Your task to perform on an android device: Open settings on Google Maps Image 0: 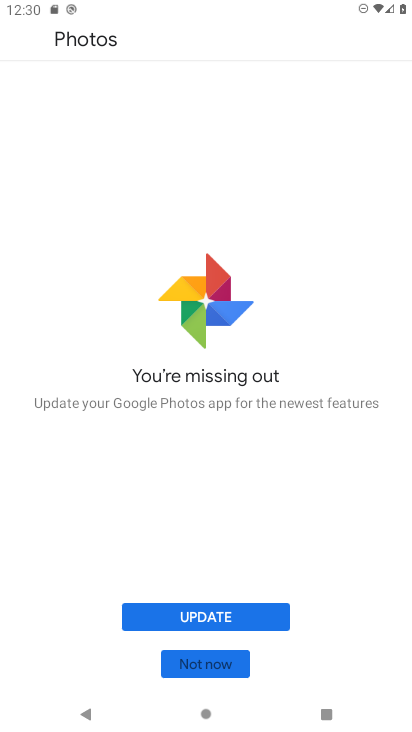
Step 0: press home button
Your task to perform on an android device: Open settings on Google Maps Image 1: 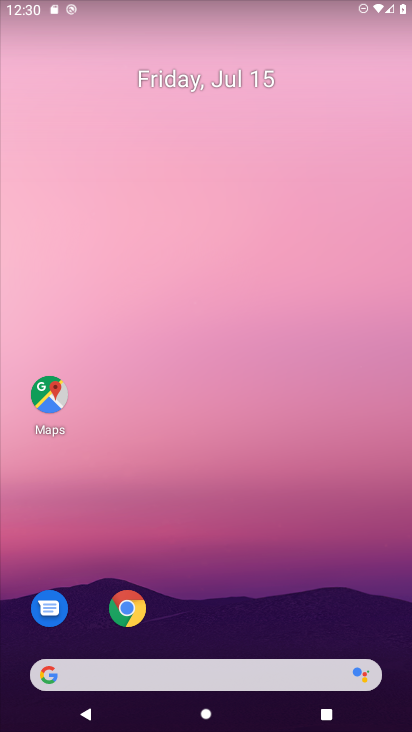
Step 1: drag from (216, 665) to (346, 11)
Your task to perform on an android device: Open settings on Google Maps Image 2: 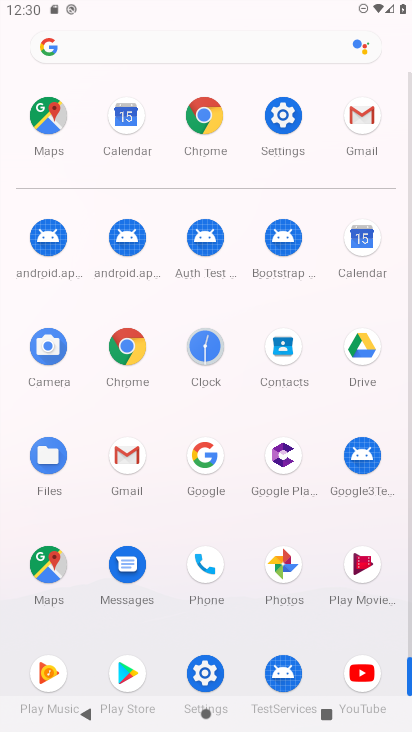
Step 2: click (47, 559)
Your task to perform on an android device: Open settings on Google Maps Image 3: 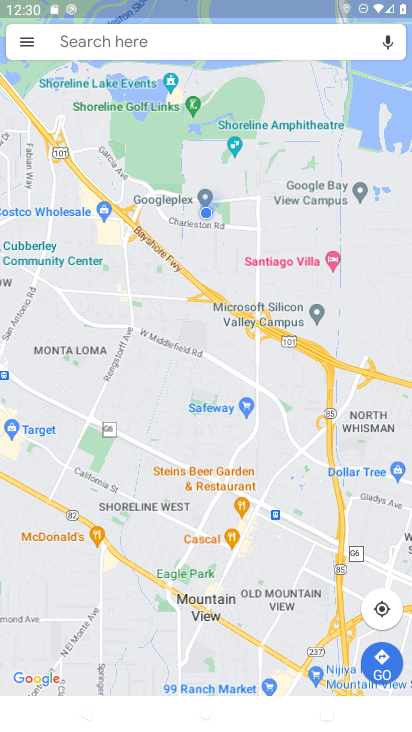
Step 3: click (30, 38)
Your task to perform on an android device: Open settings on Google Maps Image 4: 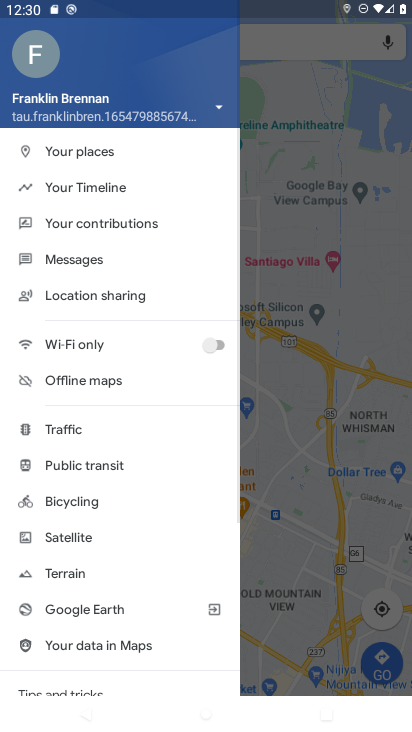
Step 4: click (71, 190)
Your task to perform on an android device: Open settings on Google Maps Image 5: 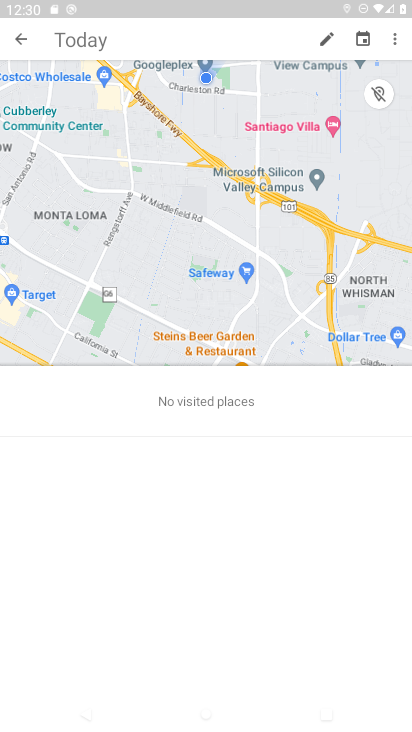
Step 5: click (397, 31)
Your task to perform on an android device: Open settings on Google Maps Image 6: 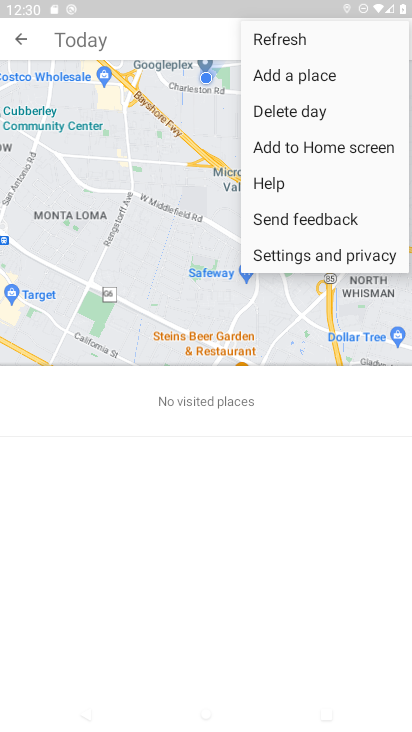
Step 6: click (326, 256)
Your task to perform on an android device: Open settings on Google Maps Image 7: 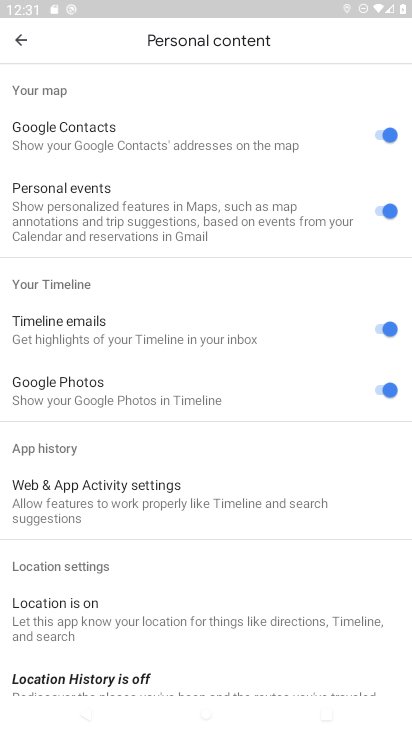
Step 7: task complete